Your task to perform on an android device: Open Google Chrome and click the shortcut for Amazon.com Image 0: 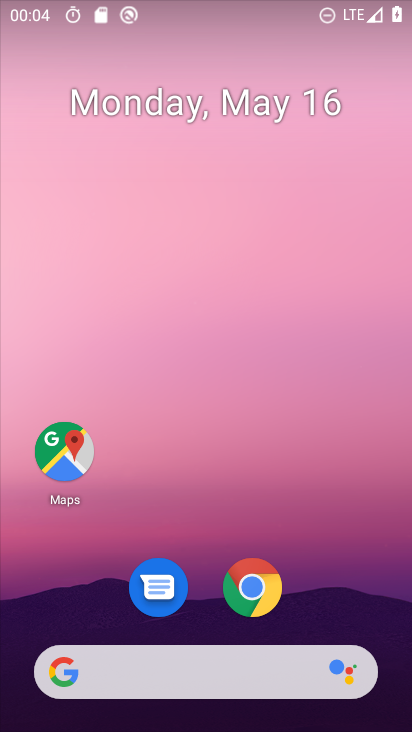
Step 0: click (266, 597)
Your task to perform on an android device: Open Google Chrome and click the shortcut for Amazon.com Image 1: 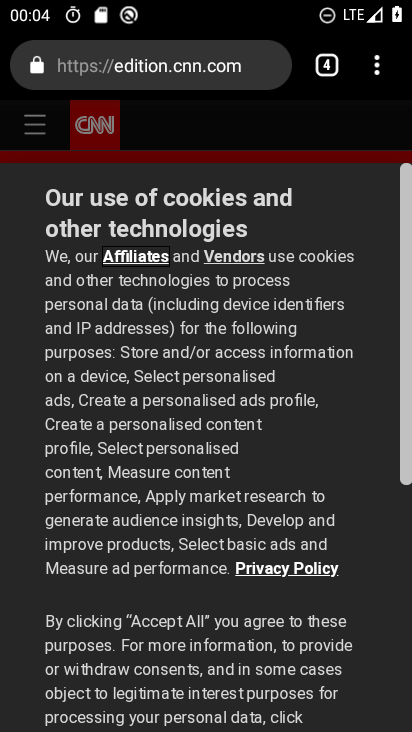
Step 1: click (342, 48)
Your task to perform on an android device: Open Google Chrome and click the shortcut for Amazon.com Image 2: 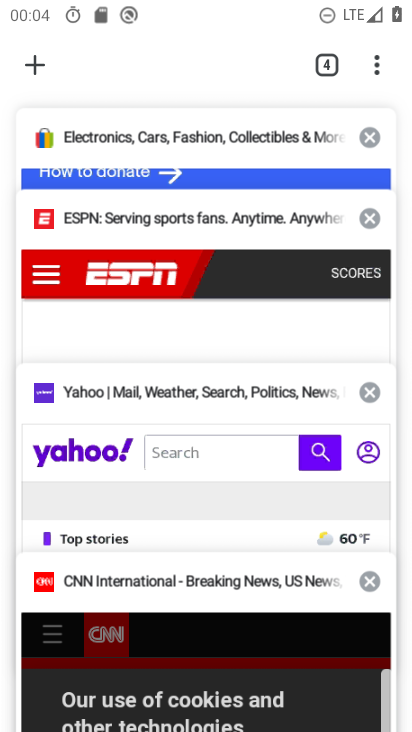
Step 2: click (32, 68)
Your task to perform on an android device: Open Google Chrome and click the shortcut for Amazon.com Image 3: 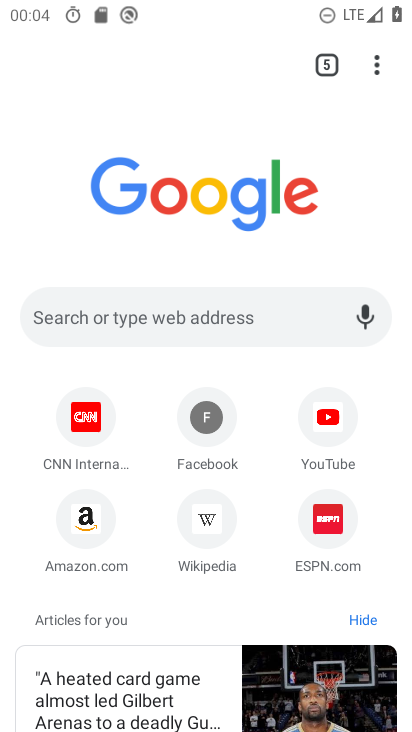
Step 3: click (73, 523)
Your task to perform on an android device: Open Google Chrome and click the shortcut for Amazon.com Image 4: 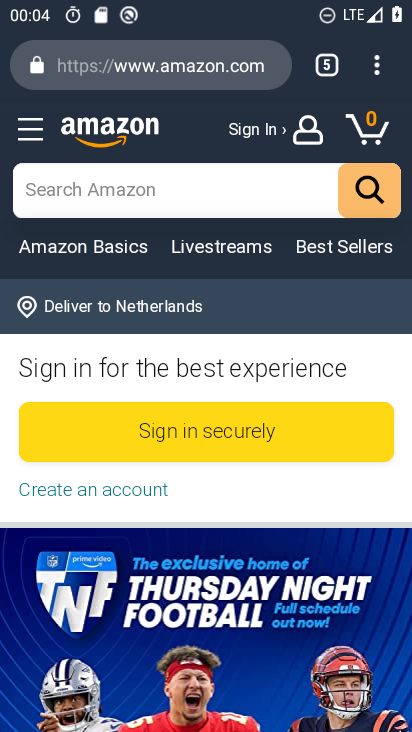
Step 4: task complete